Your task to perform on an android device: see sites visited before in the chrome app Image 0: 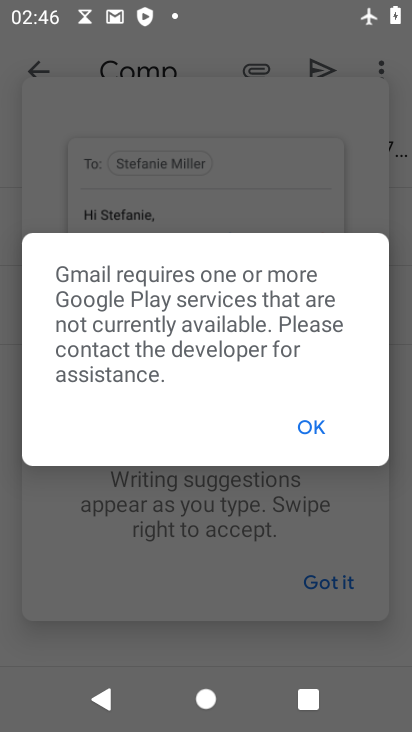
Step 0: click (308, 425)
Your task to perform on an android device: see sites visited before in the chrome app Image 1: 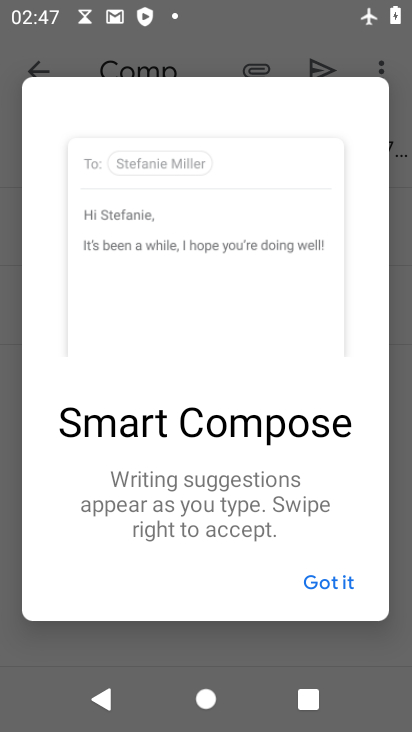
Step 1: click (326, 589)
Your task to perform on an android device: see sites visited before in the chrome app Image 2: 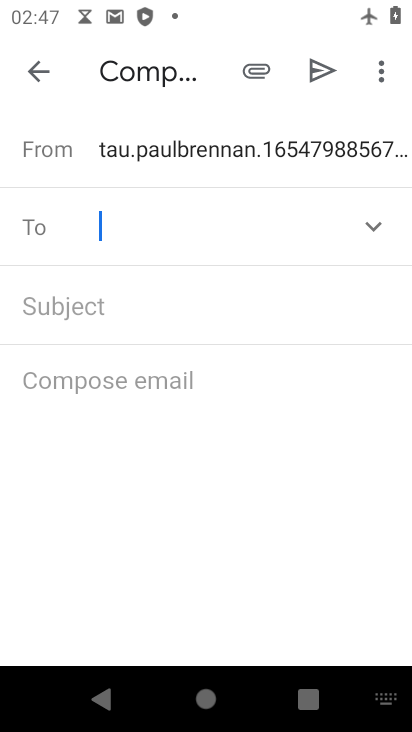
Step 2: press home button
Your task to perform on an android device: see sites visited before in the chrome app Image 3: 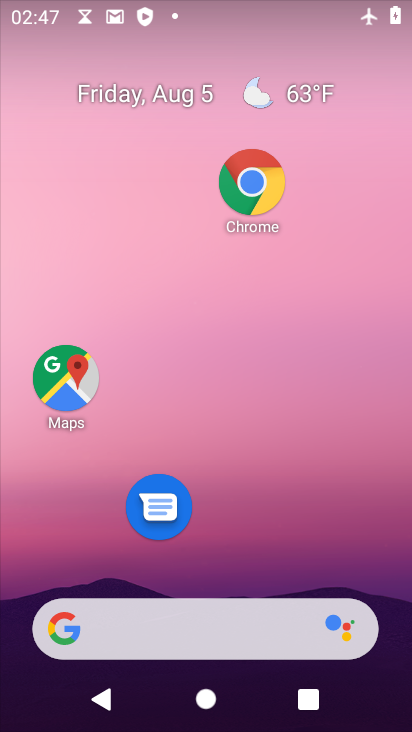
Step 3: drag from (243, 586) to (343, 15)
Your task to perform on an android device: see sites visited before in the chrome app Image 4: 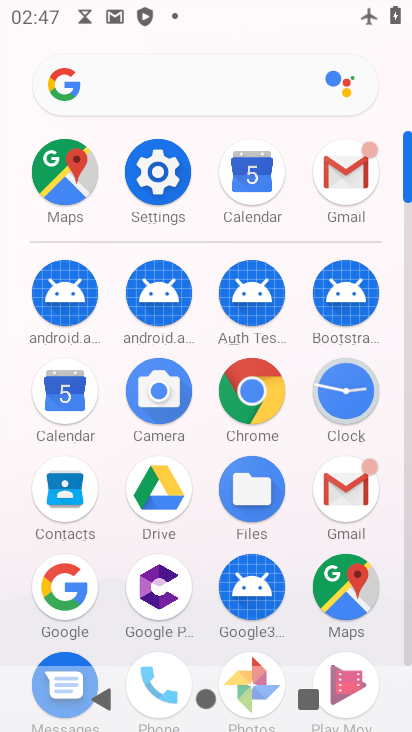
Step 4: click (254, 402)
Your task to perform on an android device: see sites visited before in the chrome app Image 5: 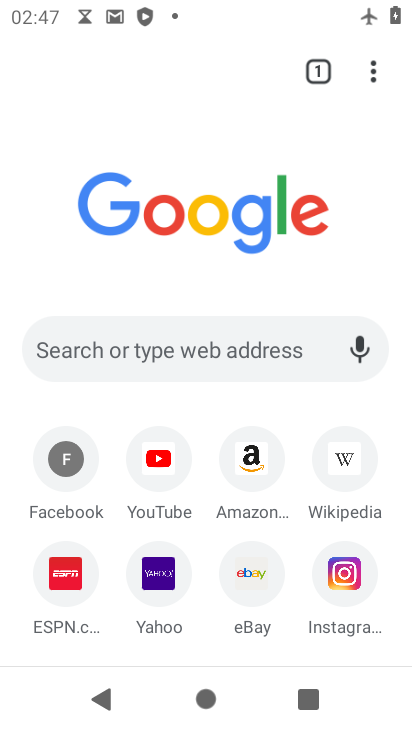
Step 5: click (380, 79)
Your task to perform on an android device: see sites visited before in the chrome app Image 6: 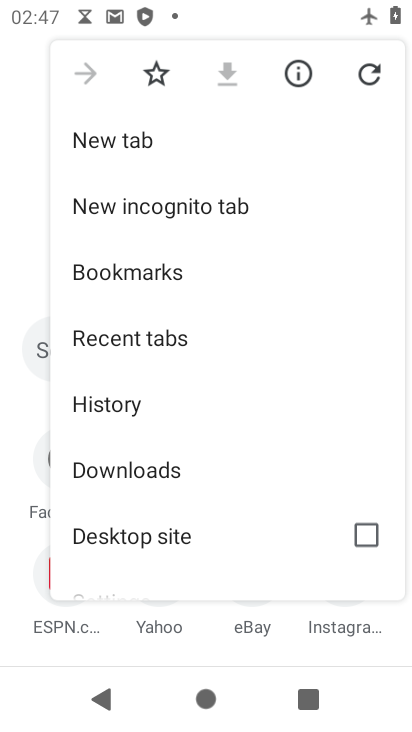
Step 6: click (121, 409)
Your task to perform on an android device: see sites visited before in the chrome app Image 7: 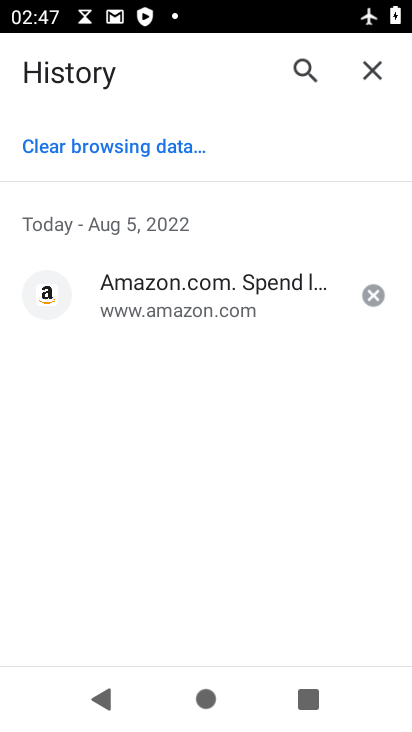
Step 7: task complete